Your task to perform on an android device: What's the latest video from Game Informer? Image 0: 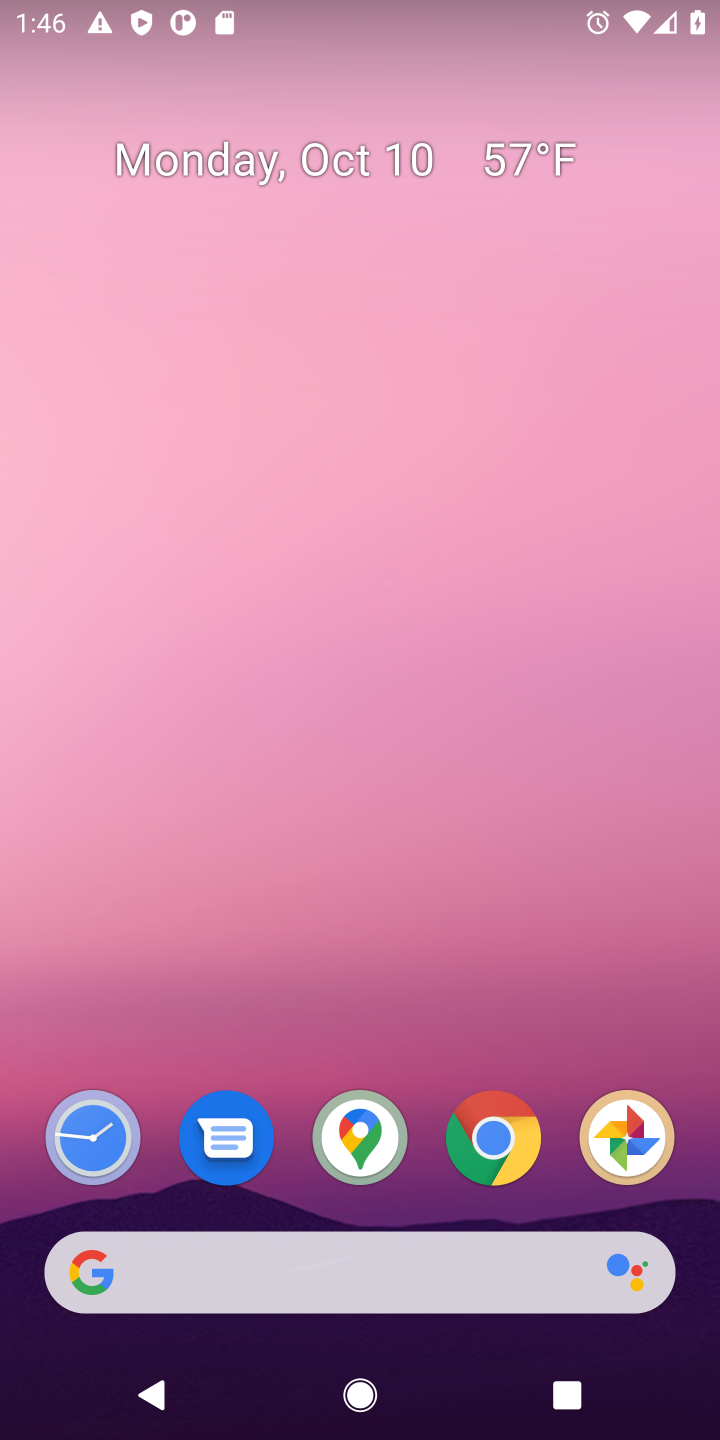
Step 0: click (174, 1261)
Your task to perform on an android device: What's the latest video from Game Informer? Image 1: 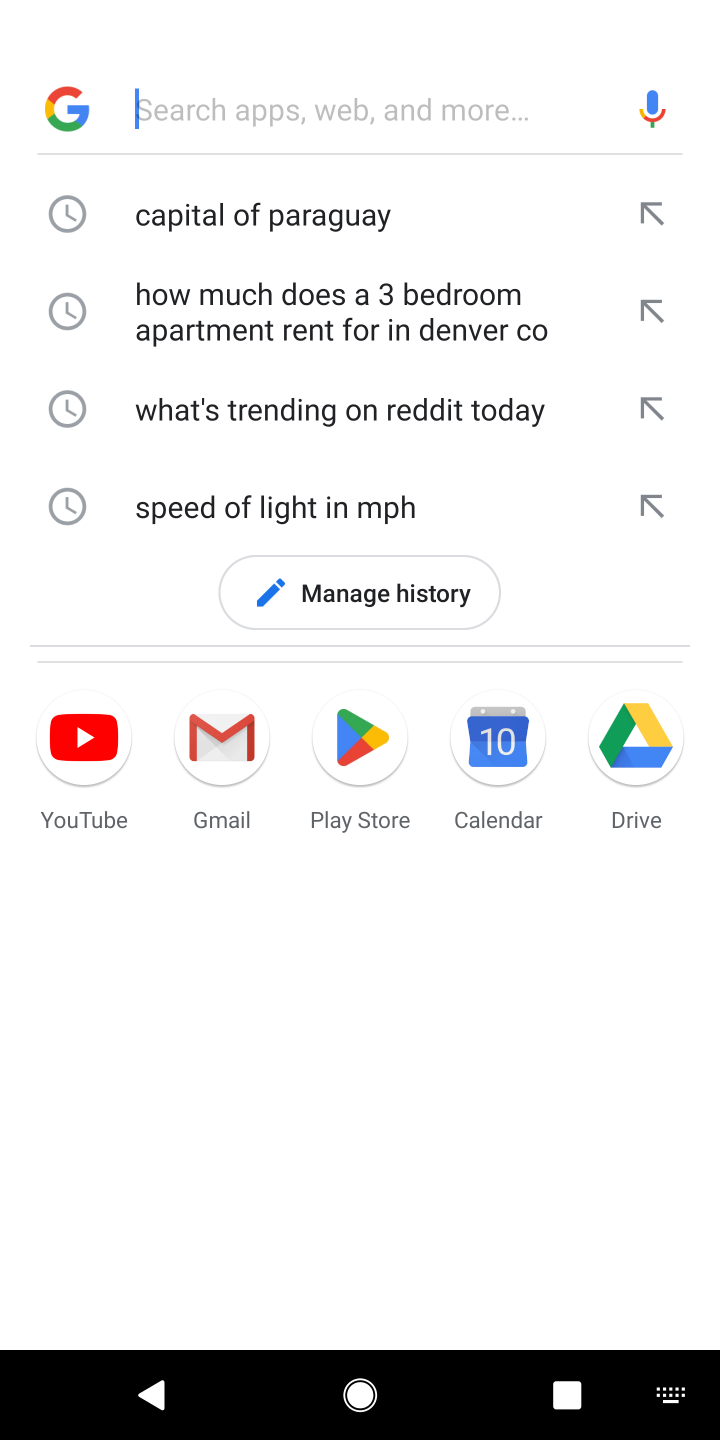
Step 1: type "What's the latest video from Game Informer?"
Your task to perform on an android device: What's the latest video from Game Informer? Image 2: 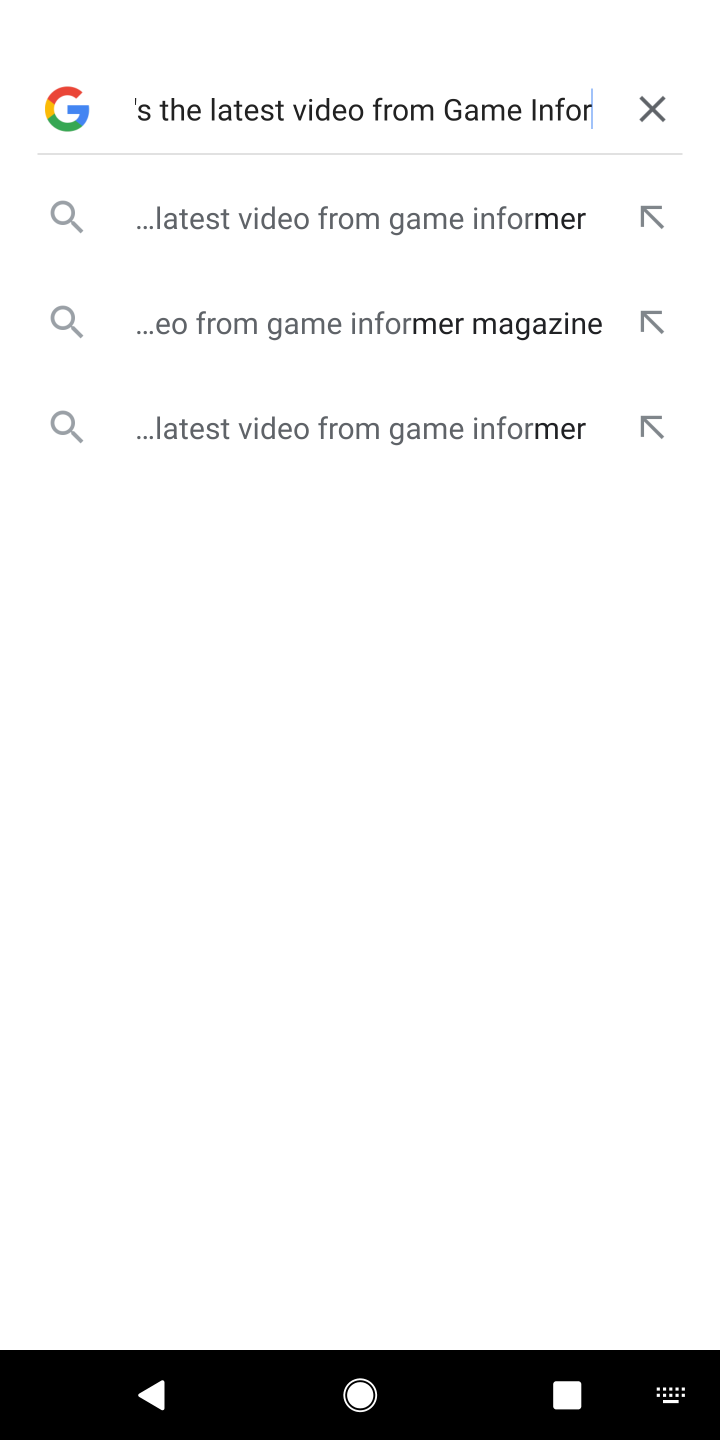
Step 2: click (389, 209)
Your task to perform on an android device: What's the latest video from Game Informer? Image 3: 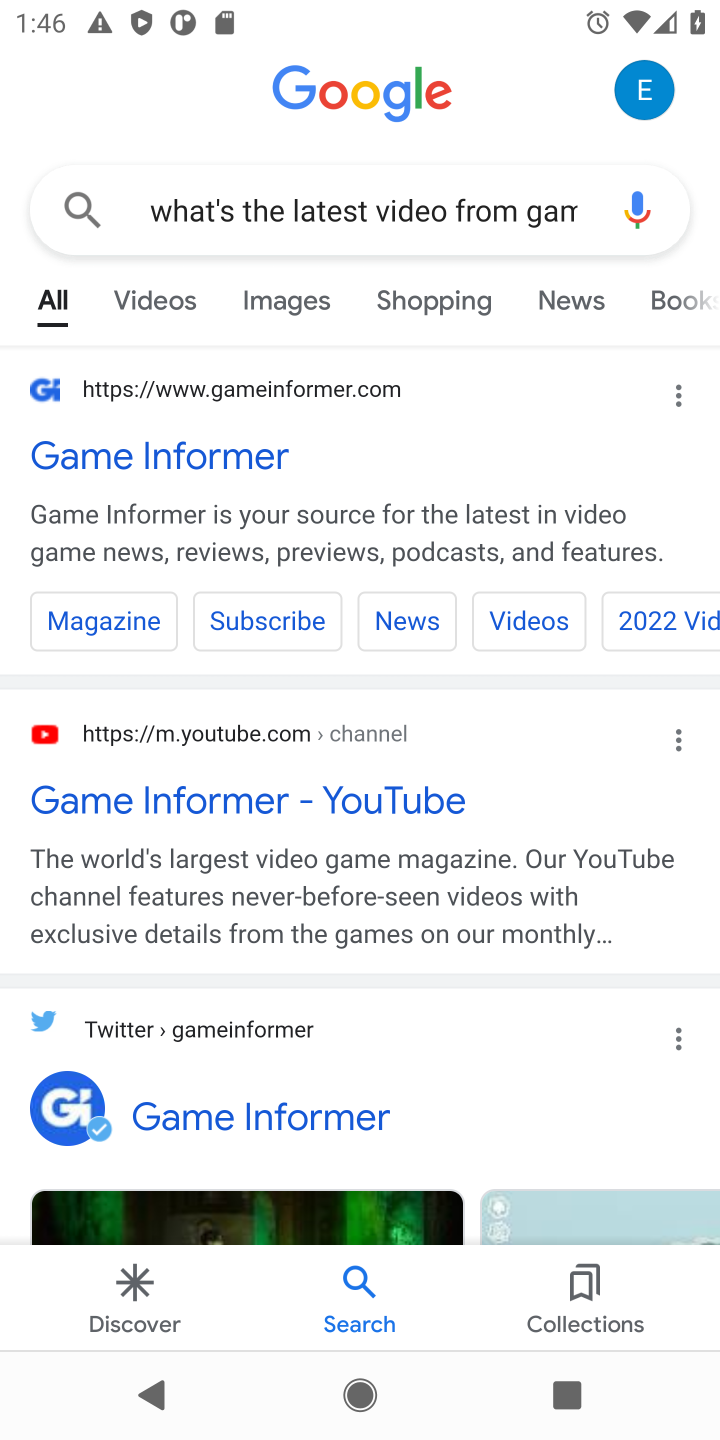
Step 3: click (225, 454)
Your task to perform on an android device: What's the latest video from Game Informer? Image 4: 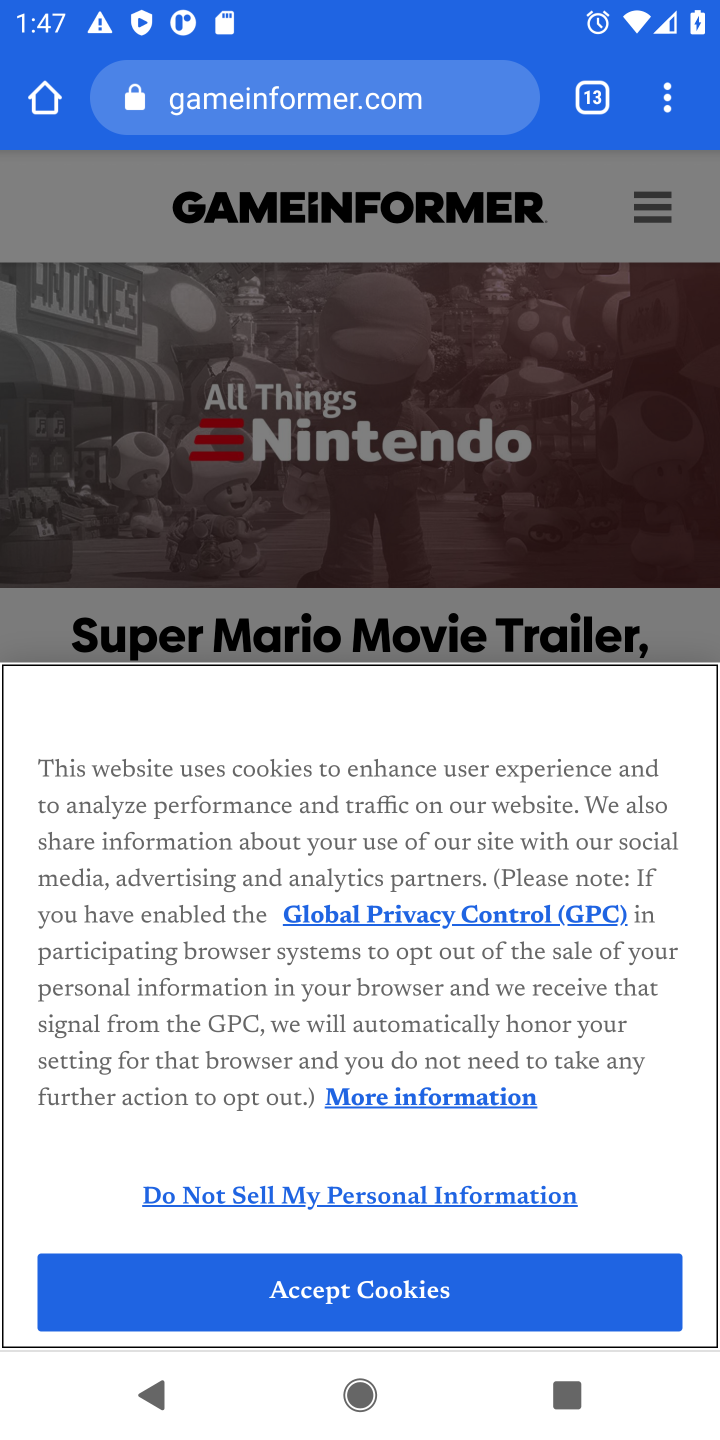
Step 4: click (429, 1294)
Your task to perform on an android device: What's the latest video from Game Informer? Image 5: 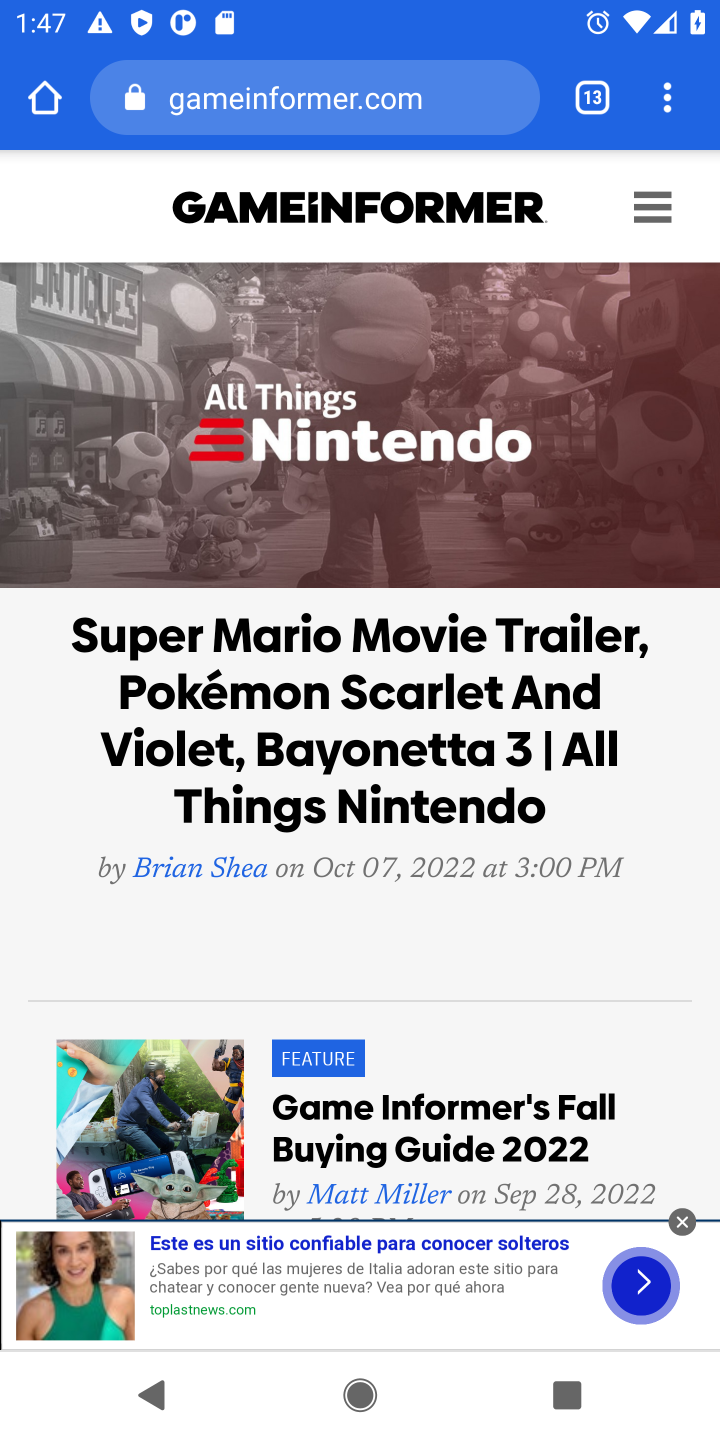
Step 5: task complete